Your task to perform on an android device: turn off location history Image 0: 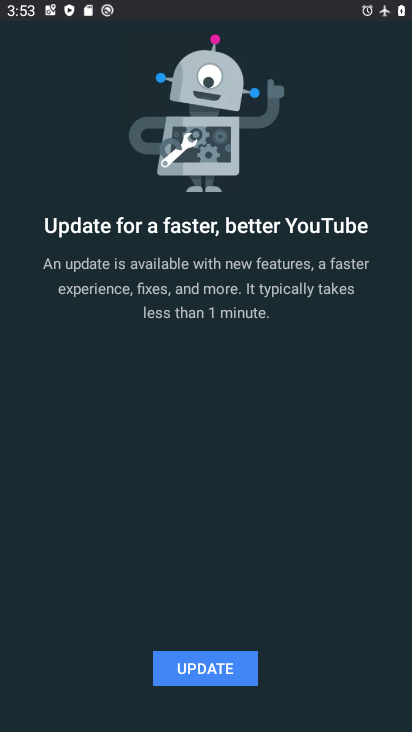
Step 0: press back button
Your task to perform on an android device: turn off location history Image 1: 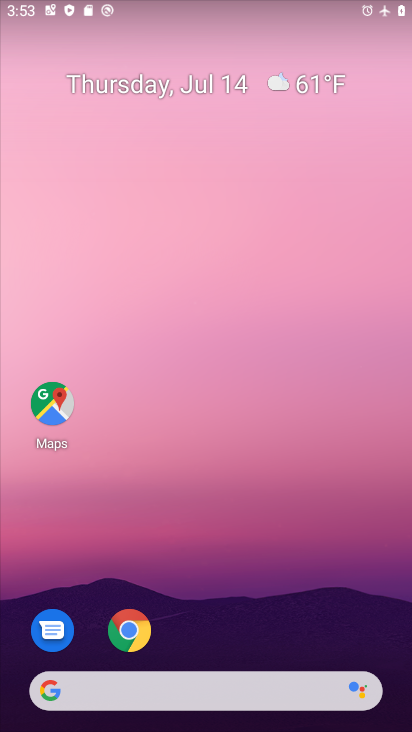
Step 1: drag from (292, 640) to (198, 4)
Your task to perform on an android device: turn off location history Image 2: 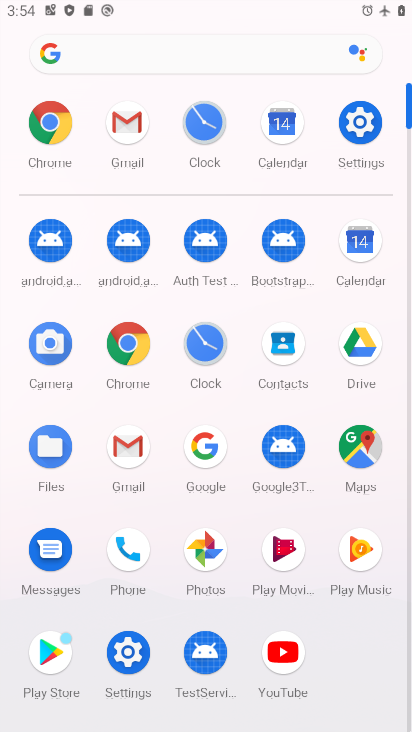
Step 2: click (351, 120)
Your task to perform on an android device: turn off location history Image 3: 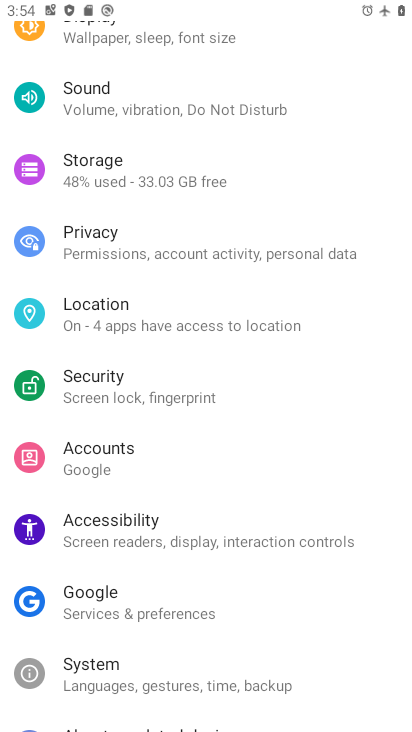
Step 3: click (82, 301)
Your task to perform on an android device: turn off location history Image 4: 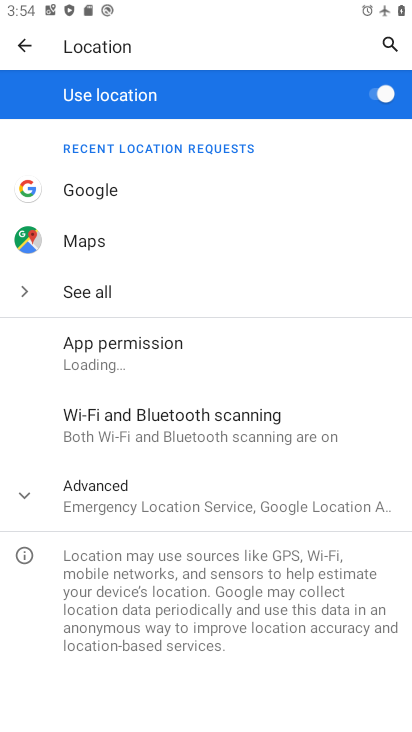
Step 4: click (111, 505)
Your task to perform on an android device: turn off location history Image 5: 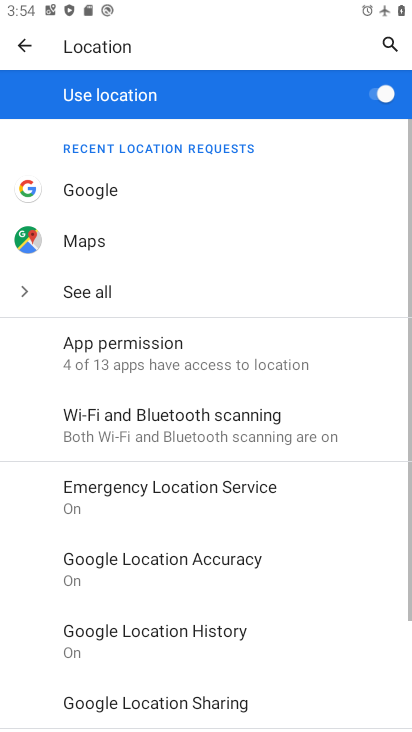
Step 5: click (207, 627)
Your task to perform on an android device: turn off location history Image 6: 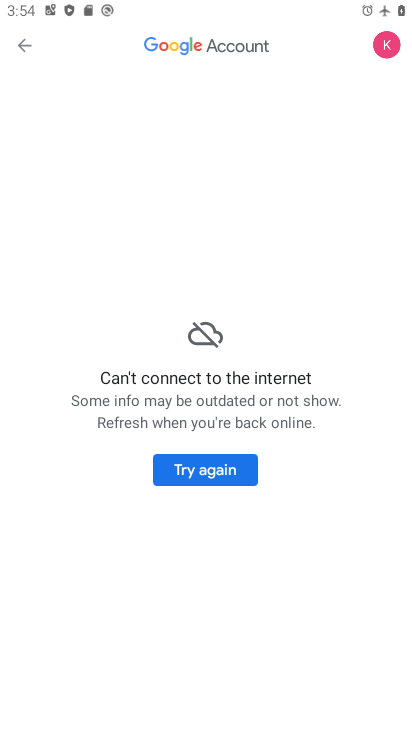
Step 6: task complete